Your task to perform on an android device: star an email in the gmail app Image 0: 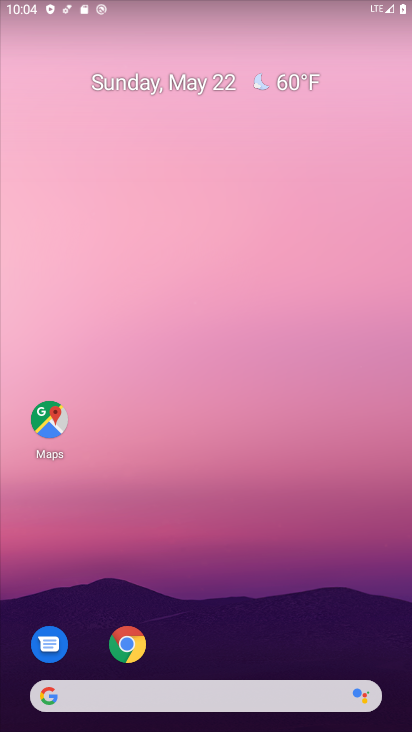
Step 0: drag from (206, 677) to (194, 268)
Your task to perform on an android device: star an email in the gmail app Image 1: 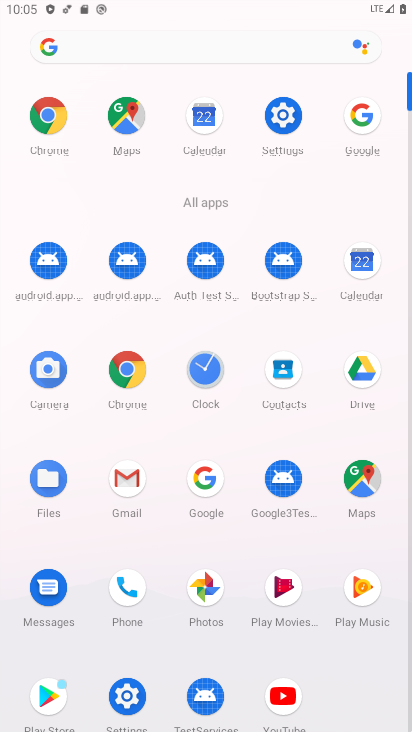
Step 1: click (119, 488)
Your task to perform on an android device: star an email in the gmail app Image 2: 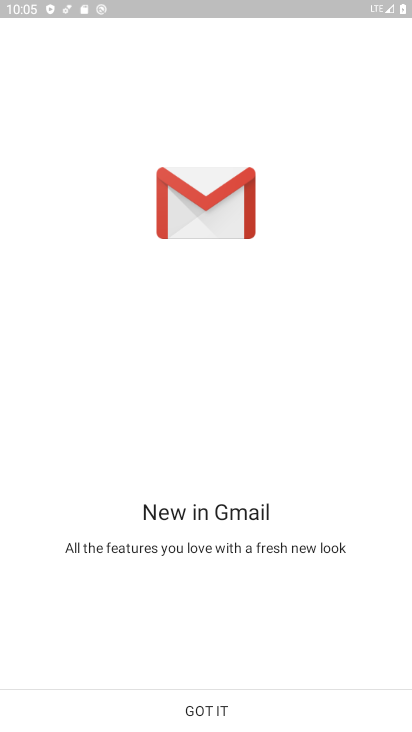
Step 2: click (218, 708)
Your task to perform on an android device: star an email in the gmail app Image 3: 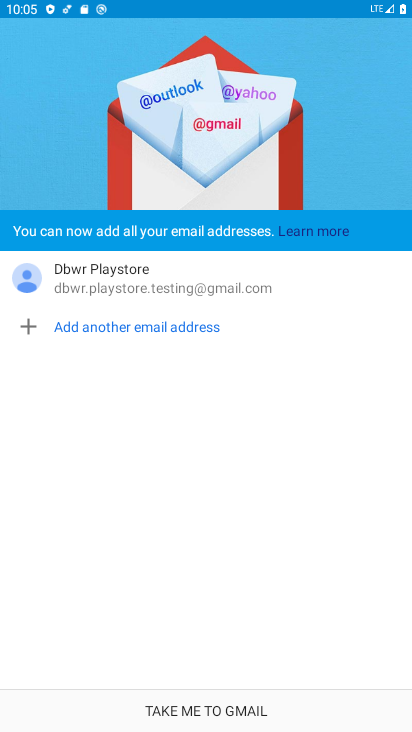
Step 3: click (170, 715)
Your task to perform on an android device: star an email in the gmail app Image 4: 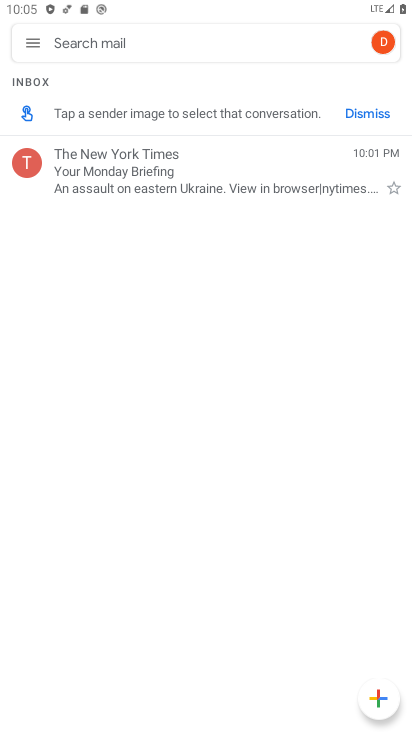
Step 4: click (128, 186)
Your task to perform on an android device: star an email in the gmail app Image 5: 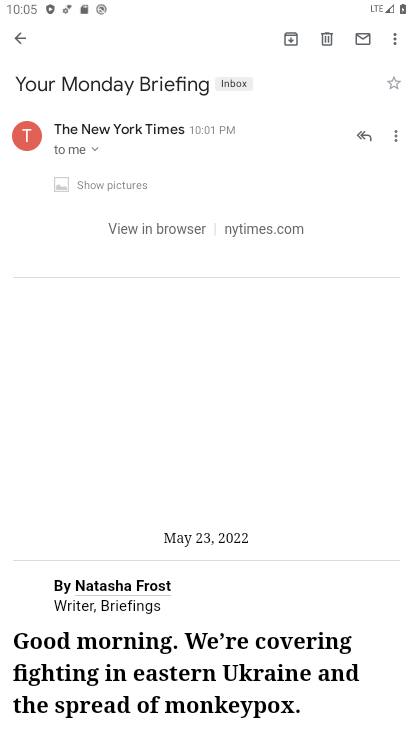
Step 5: click (389, 87)
Your task to perform on an android device: star an email in the gmail app Image 6: 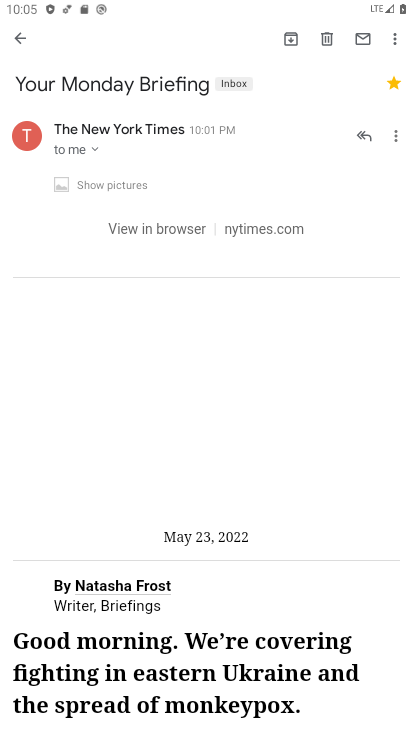
Step 6: task complete